Your task to perform on an android device: Go to internet settings Image 0: 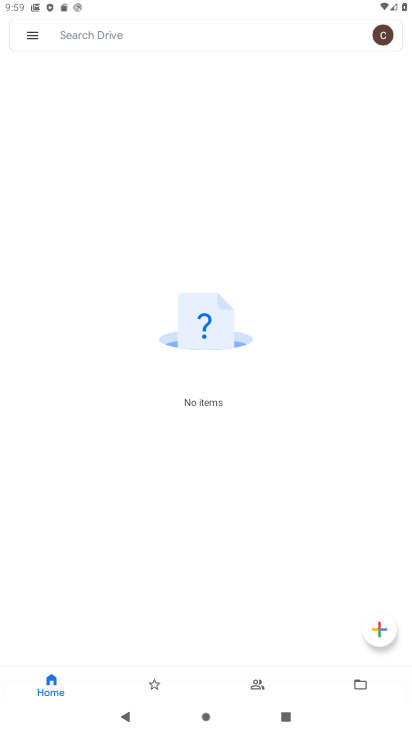
Step 0: press home button
Your task to perform on an android device: Go to internet settings Image 1: 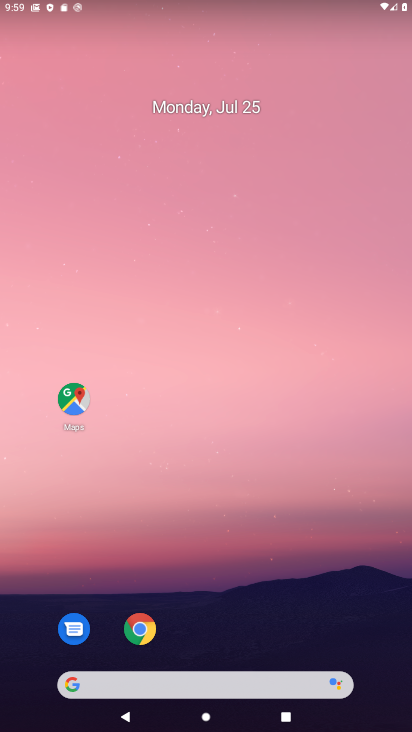
Step 1: drag from (201, 626) to (231, 0)
Your task to perform on an android device: Go to internet settings Image 2: 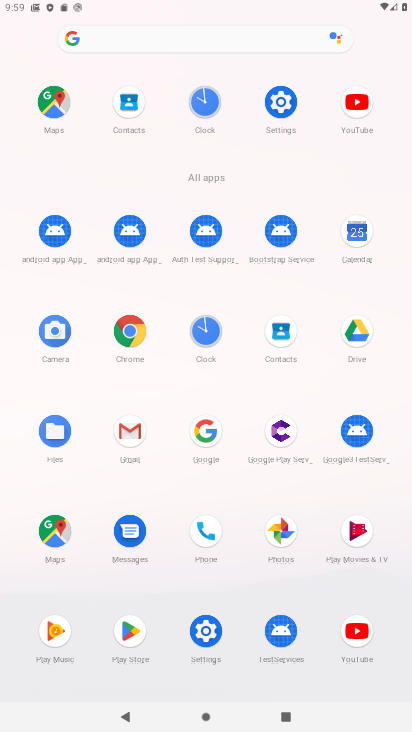
Step 2: click (282, 107)
Your task to perform on an android device: Go to internet settings Image 3: 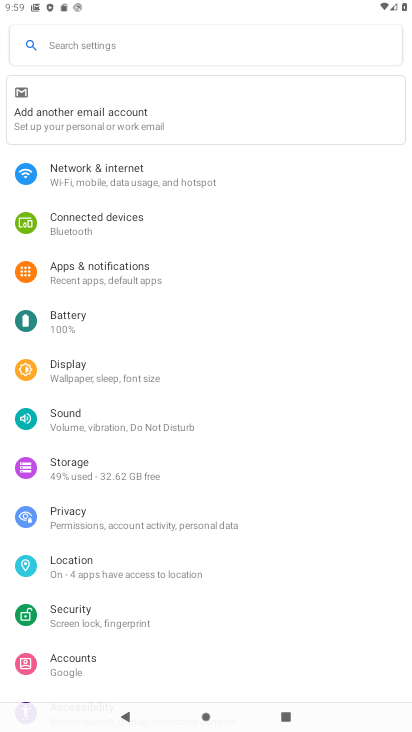
Step 3: click (145, 182)
Your task to perform on an android device: Go to internet settings Image 4: 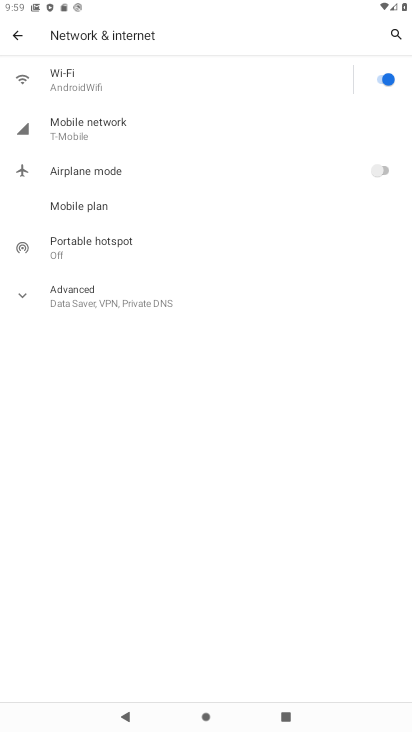
Step 4: click (22, 298)
Your task to perform on an android device: Go to internet settings Image 5: 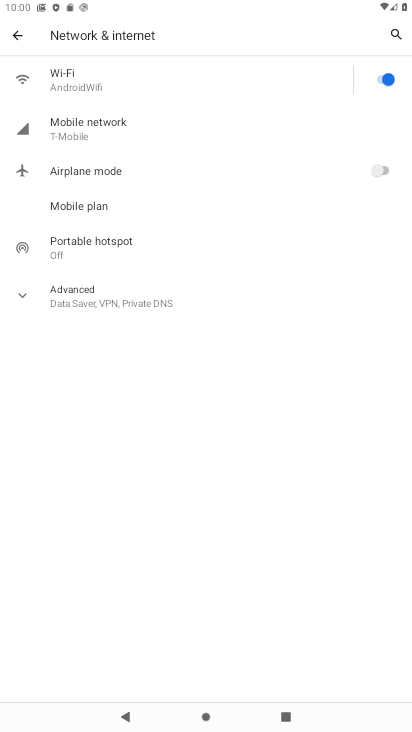
Step 5: click (24, 298)
Your task to perform on an android device: Go to internet settings Image 6: 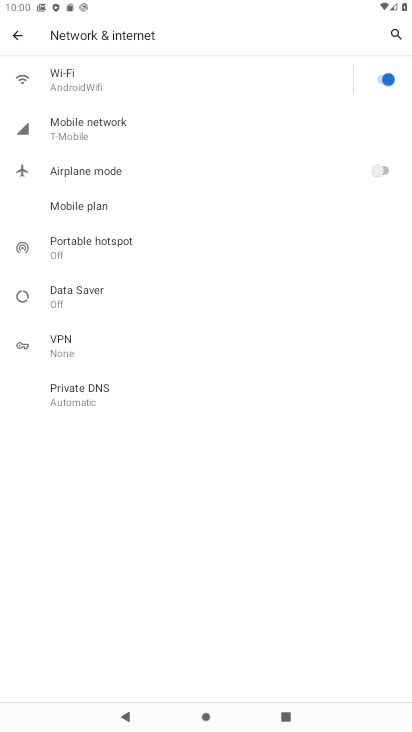
Step 6: task complete